Your task to perform on an android device: Open the Play Movies app and select the watchlist tab. Image 0: 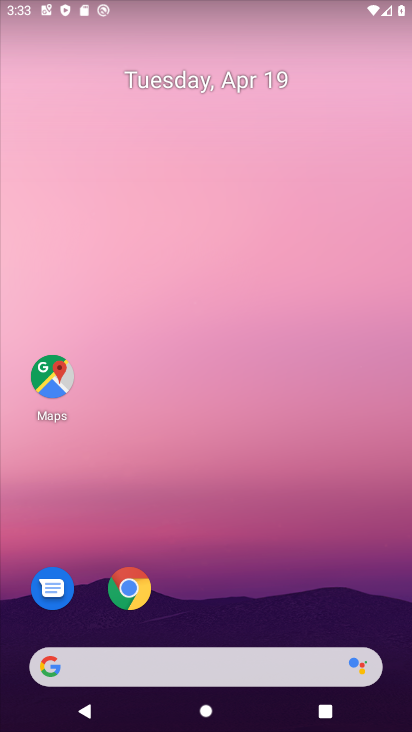
Step 0: drag from (228, 442) to (166, 91)
Your task to perform on an android device: Open the Play Movies app and select the watchlist tab. Image 1: 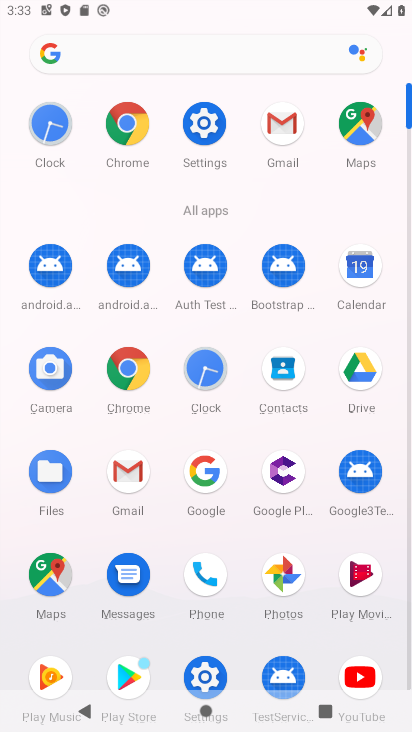
Step 1: click (355, 581)
Your task to perform on an android device: Open the Play Movies app and select the watchlist tab. Image 2: 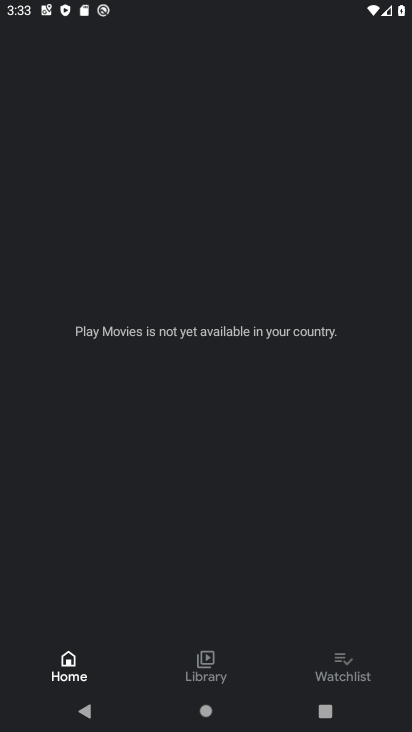
Step 2: click (349, 655)
Your task to perform on an android device: Open the Play Movies app and select the watchlist tab. Image 3: 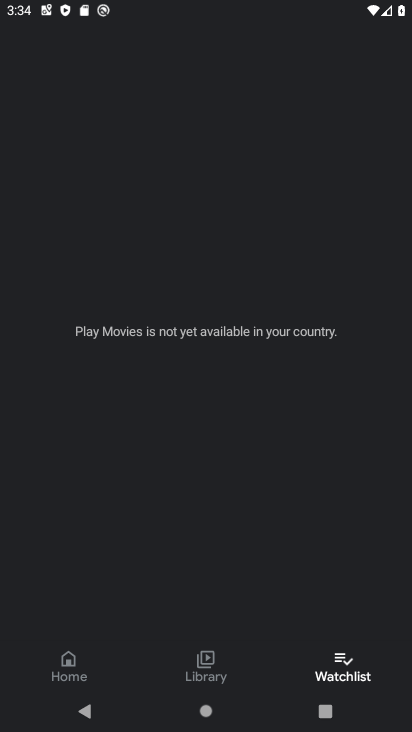
Step 3: task complete